Your task to perform on an android device: Add usb-b to the cart on bestbuy.com, then select checkout. Image 0: 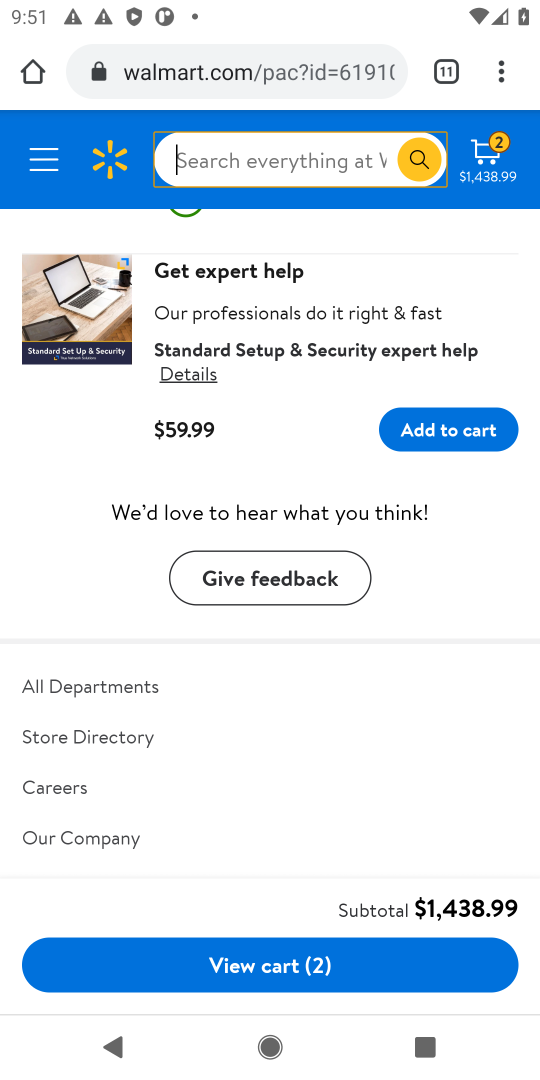
Step 0: press home button
Your task to perform on an android device: Add usb-b to the cart on bestbuy.com, then select checkout. Image 1: 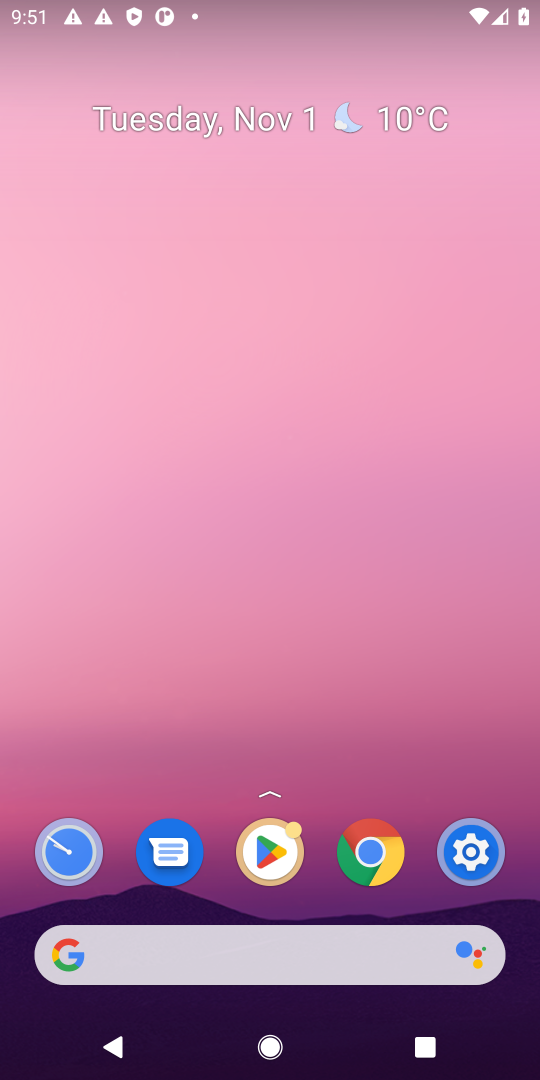
Step 1: click (58, 947)
Your task to perform on an android device: Add usb-b to the cart on bestbuy.com, then select checkout. Image 2: 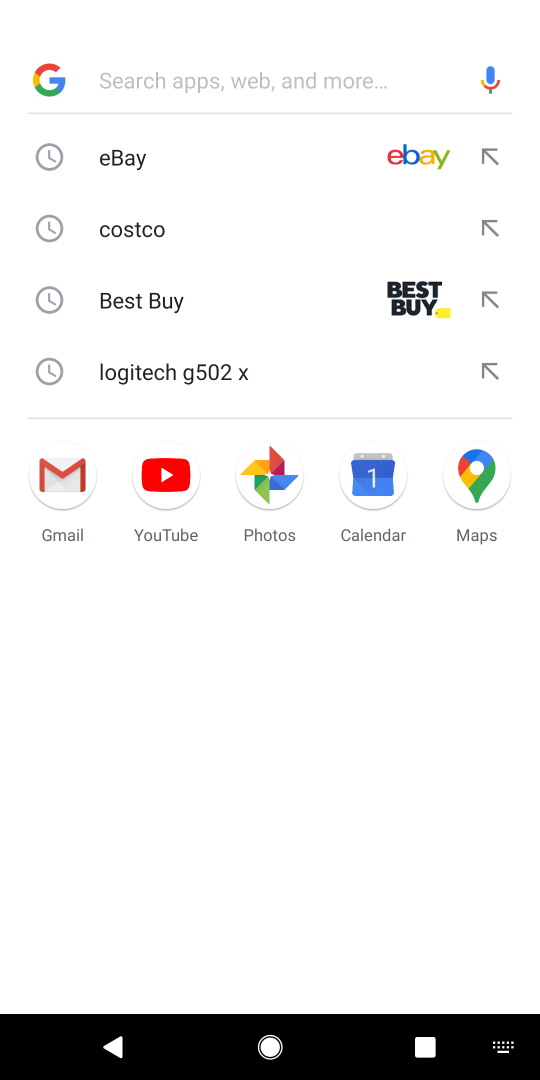
Step 2: type "bestbuy.com"
Your task to perform on an android device: Add usb-b to the cart on bestbuy.com, then select checkout. Image 3: 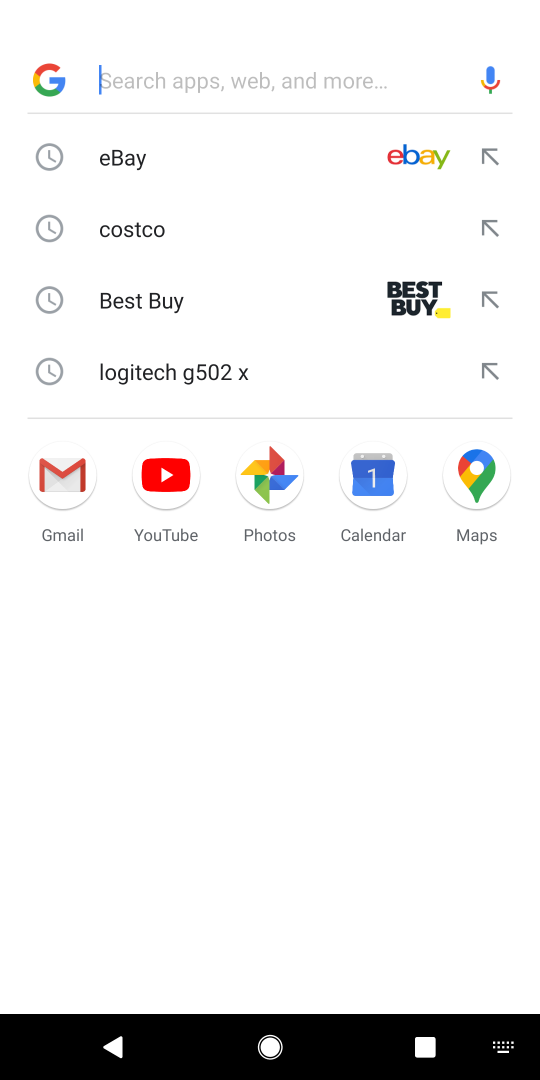
Step 3: click (116, 65)
Your task to perform on an android device: Add usb-b to the cart on bestbuy.com, then select checkout. Image 4: 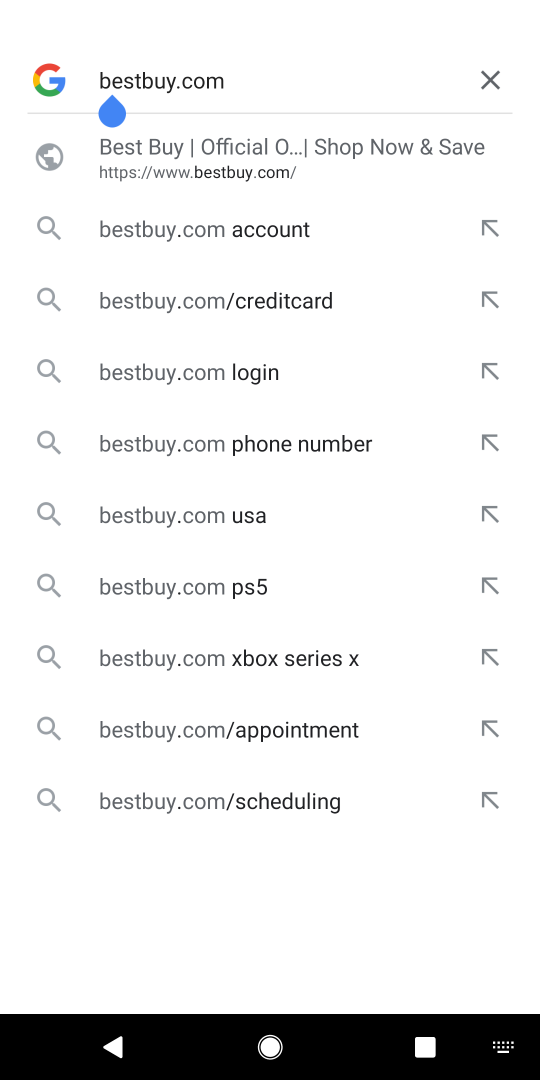
Step 4: press enter
Your task to perform on an android device: Add usb-b to the cart on bestbuy.com, then select checkout. Image 5: 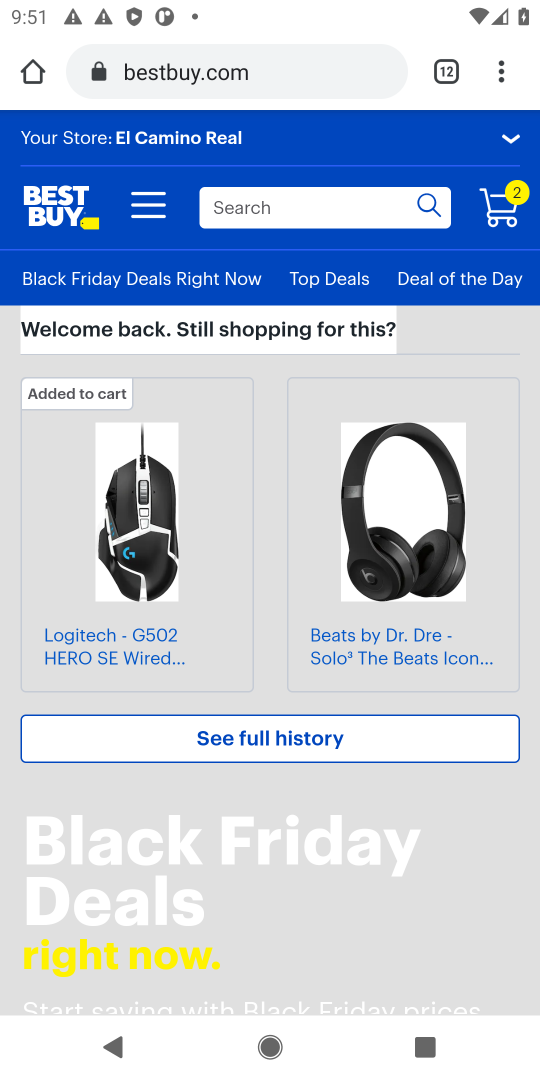
Step 5: click (340, 208)
Your task to perform on an android device: Add usb-b to the cart on bestbuy.com, then select checkout. Image 6: 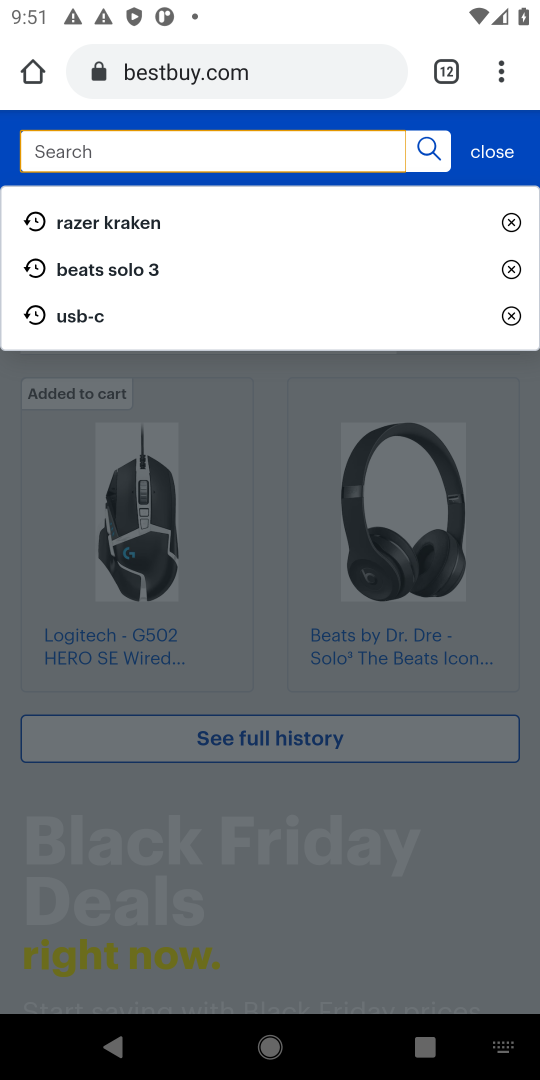
Step 6: type "usb-b"
Your task to perform on an android device: Add usb-b to the cart on bestbuy.com, then select checkout. Image 7: 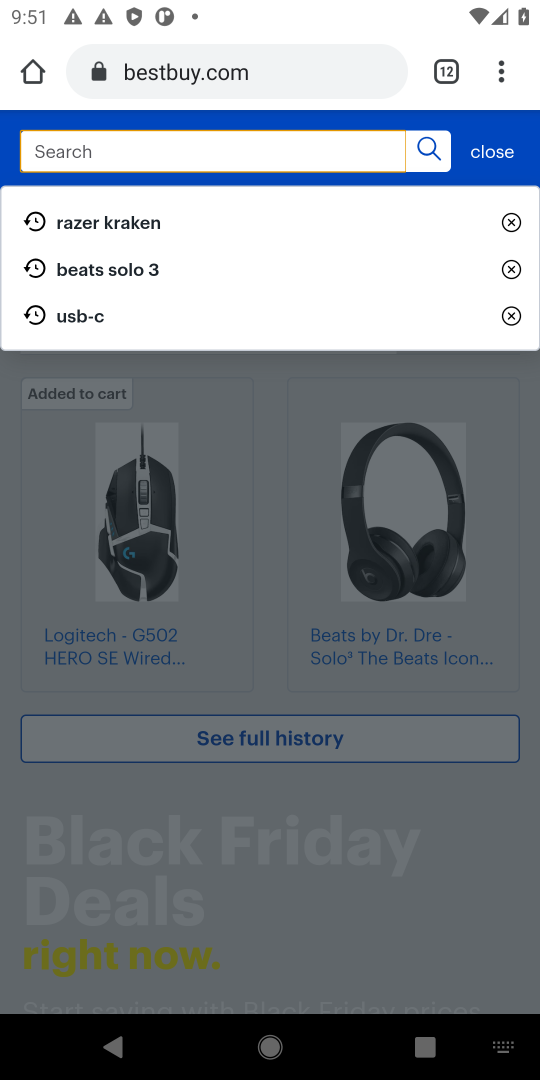
Step 7: click (137, 145)
Your task to perform on an android device: Add usb-b to the cart on bestbuy.com, then select checkout. Image 8: 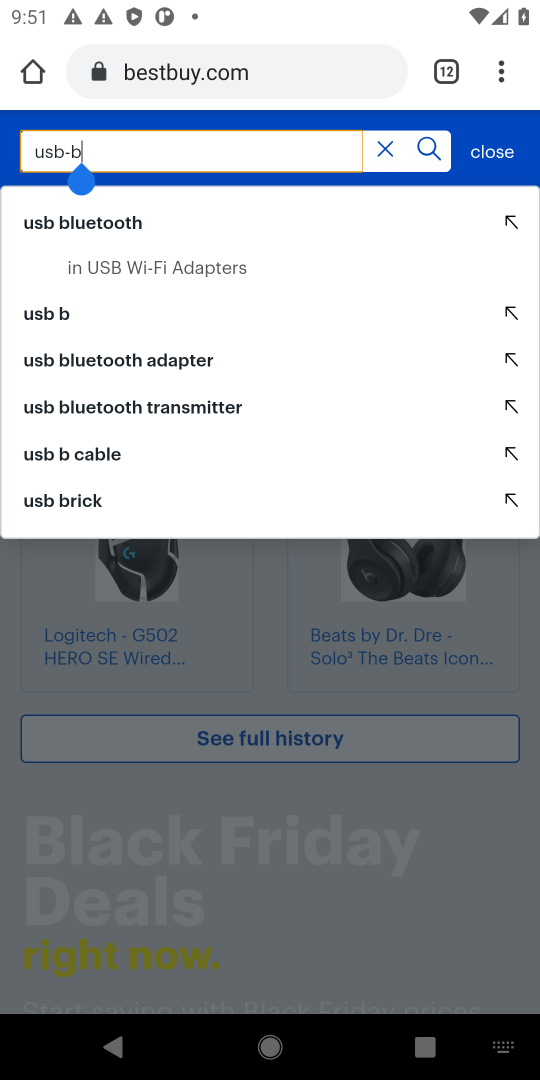
Step 8: press enter
Your task to perform on an android device: Add usb-b to the cart on bestbuy.com, then select checkout. Image 9: 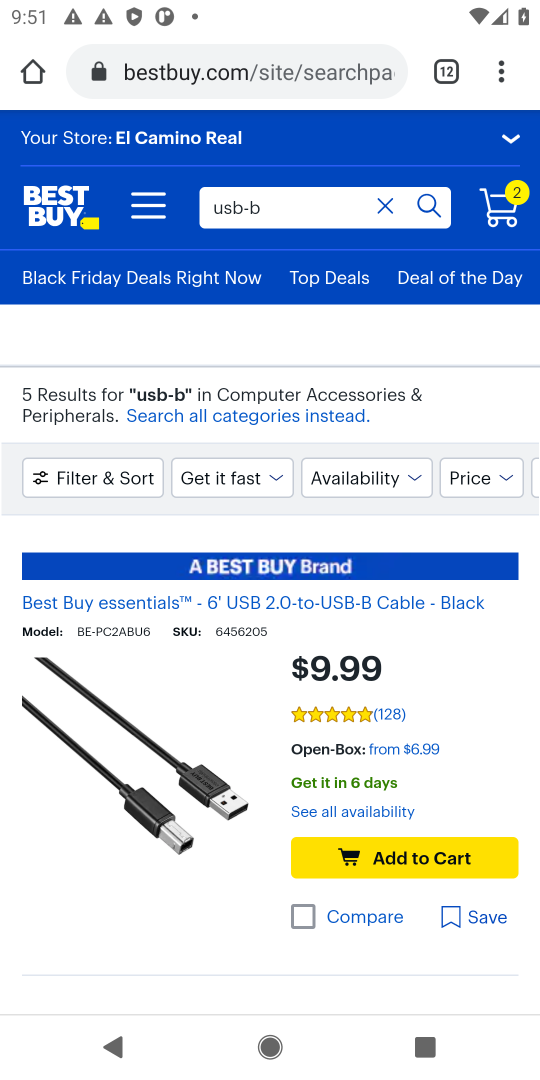
Step 9: click (412, 863)
Your task to perform on an android device: Add usb-b to the cart on bestbuy.com, then select checkout. Image 10: 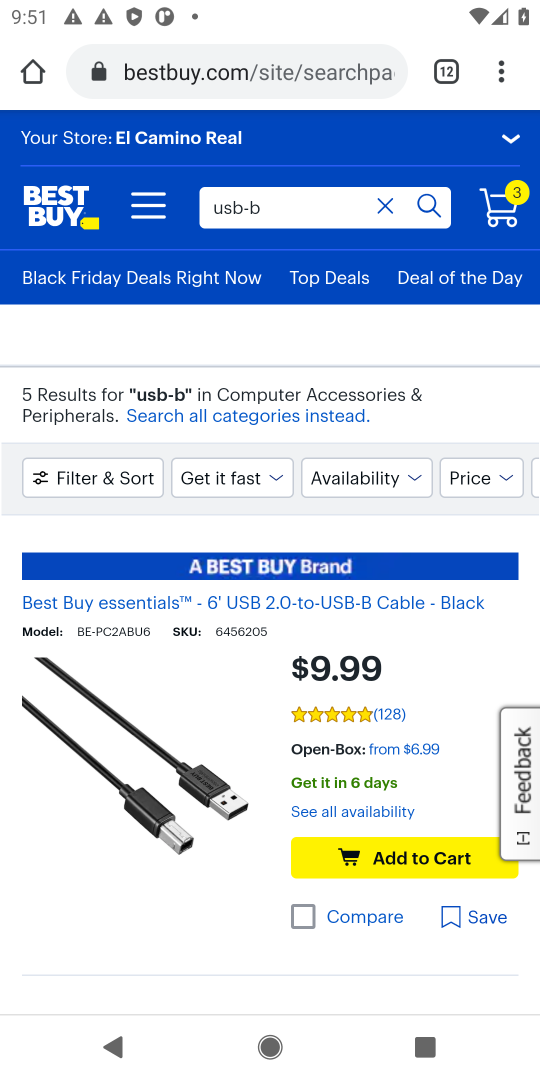
Step 10: click (510, 212)
Your task to perform on an android device: Add usb-b to the cart on bestbuy.com, then select checkout. Image 11: 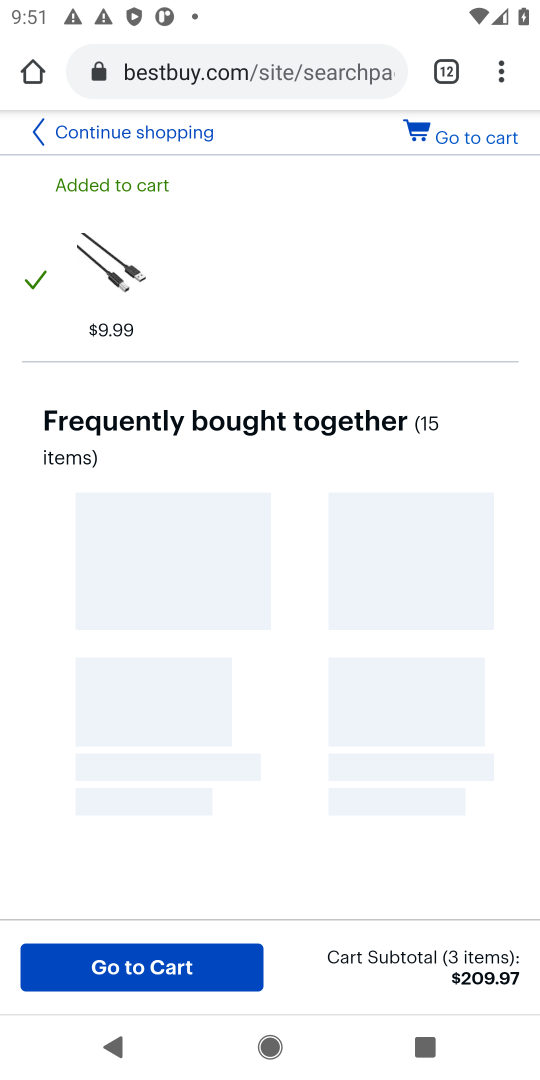
Step 11: click (130, 964)
Your task to perform on an android device: Add usb-b to the cart on bestbuy.com, then select checkout. Image 12: 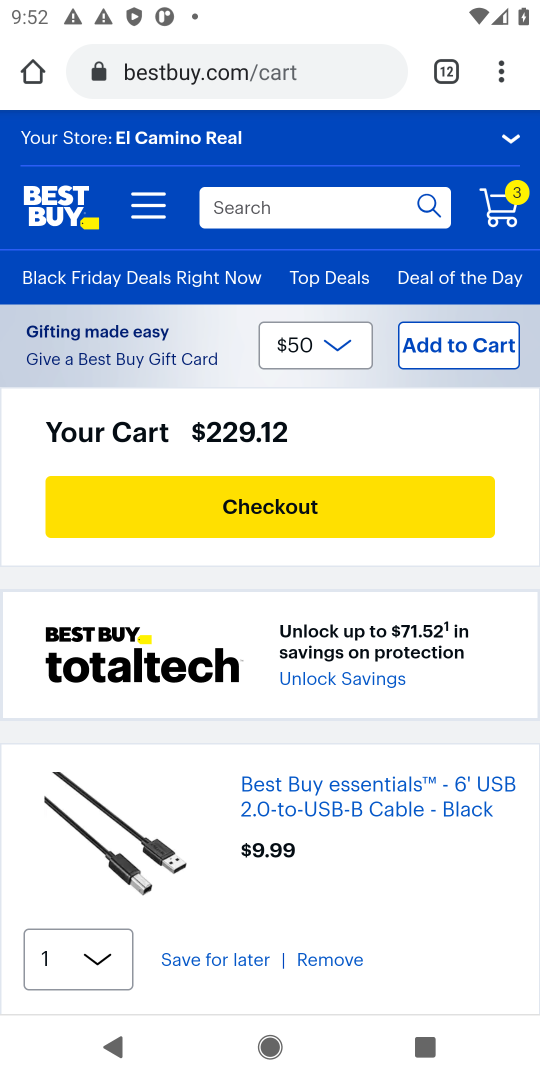
Step 12: click (295, 506)
Your task to perform on an android device: Add usb-b to the cart on bestbuy.com, then select checkout. Image 13: 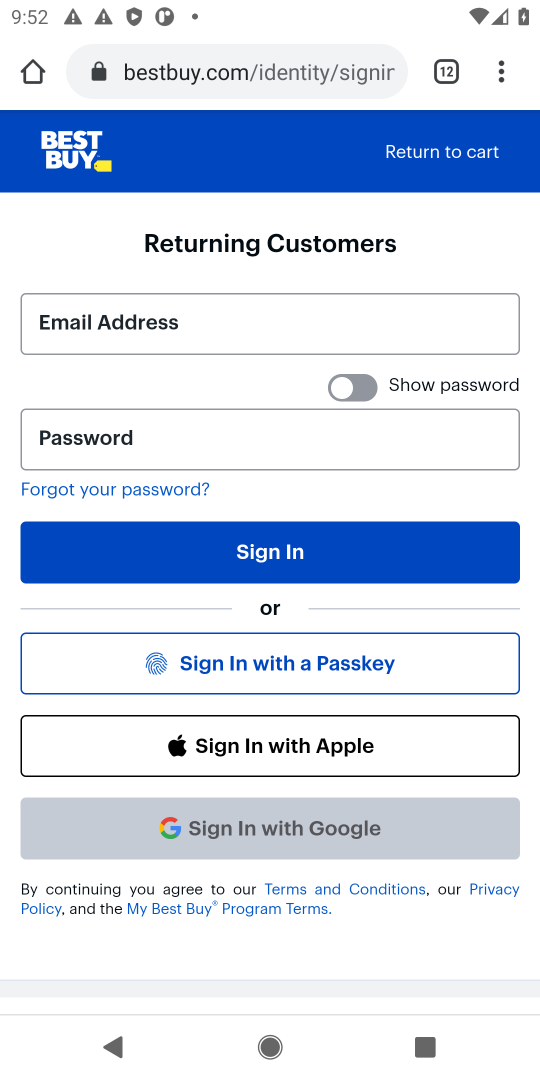
Step 13: task complete